Your task to perform on an android device: Search for Italian restaurants on Maps Image 0: 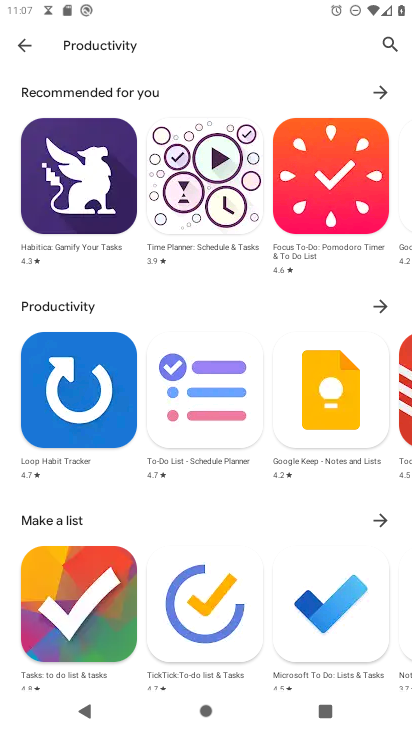
Step 0: press home button
Your task to perform on an android device: Search for Italian restaurants on Maps Image 1: 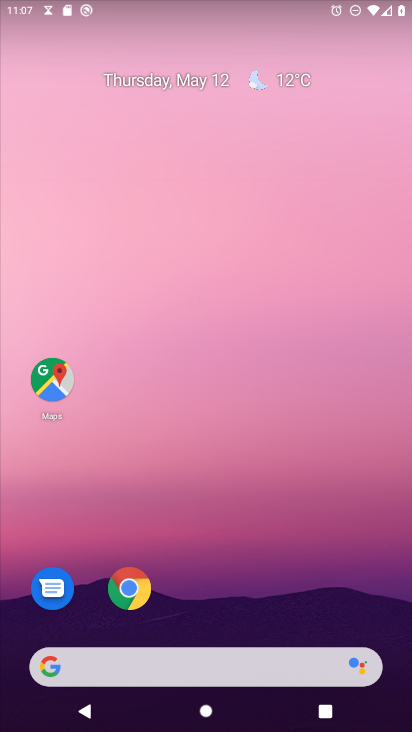
Step 1: click (51, 382)
Your task to perform on an android device: Search for Italian restaurants on Maps Image 2: 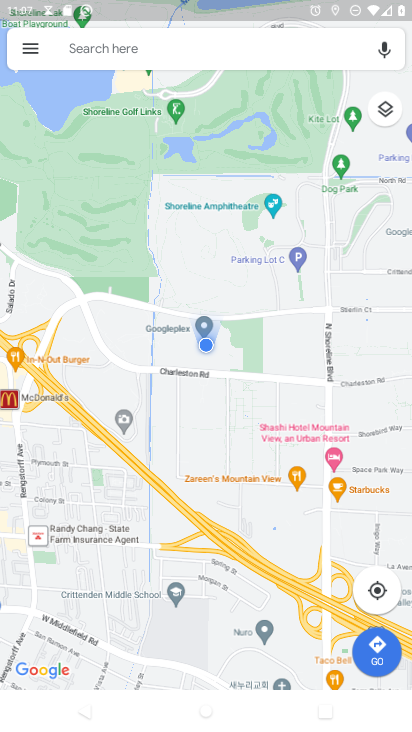
Step 2: click (137, 45)
Your task to perform on an android device: Search for Italian restaurants on Maps Image 3: 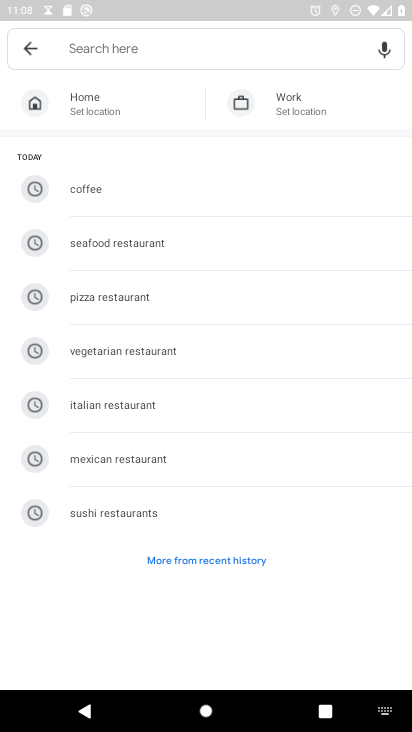
Step 3: type "Italian restaurants"
Your task to perform on an android device: Search for Italian restaurants on Maps Image 4: 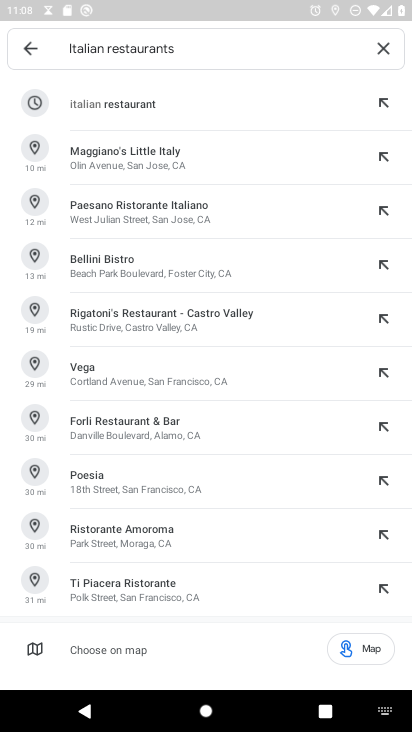
Step 4: click (144, 104)
Your task to perform on an android device: Search for Italian restaurants on Maps Image 5: 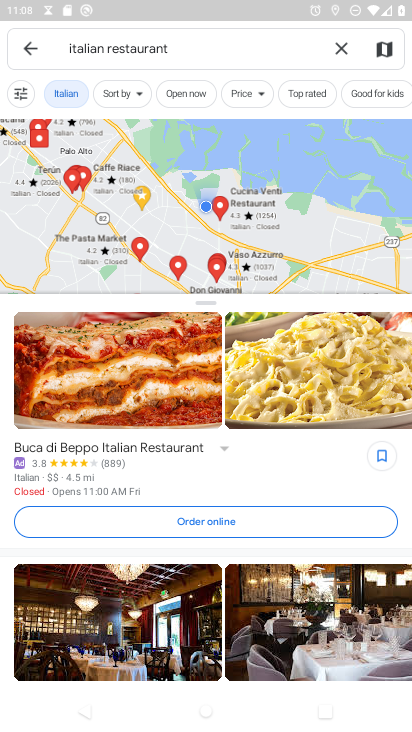
Step 5: task complete